Your task to perform on an android device: Go to privacy settings Image 0: 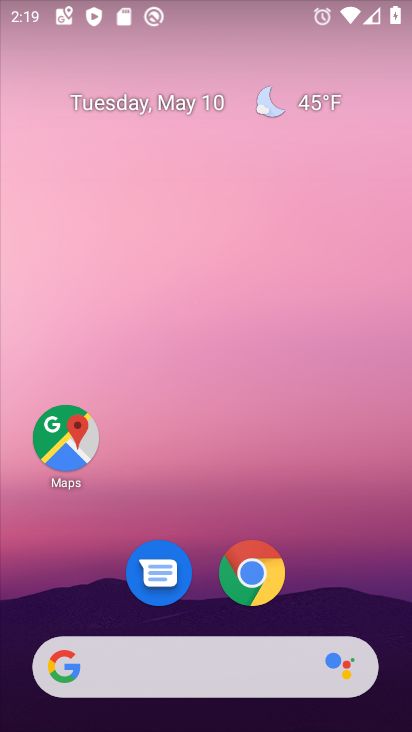
Step 0: drag from (205, 724) to (222, 169)
Your task to perform on an android device: Go to privacy settings Image 1: 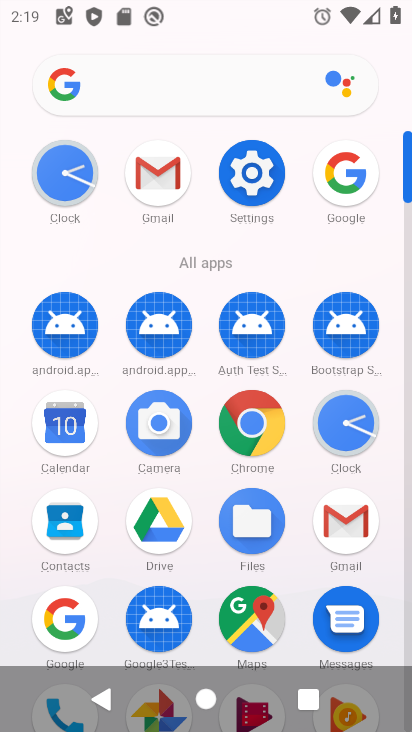
Step 1: click (263, 174)
Your task to perform on an android device: Go to privacy settings Image 2: 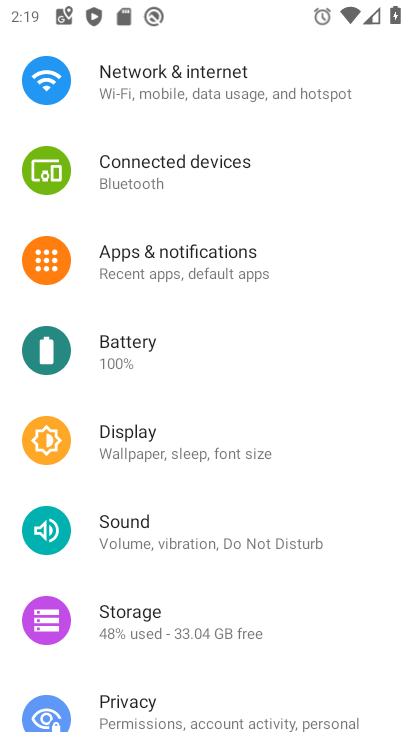
Step 2: drag from (309, 657) to (300, 80)
Your task to perform on an android device: Go to privacy settings Image 3: 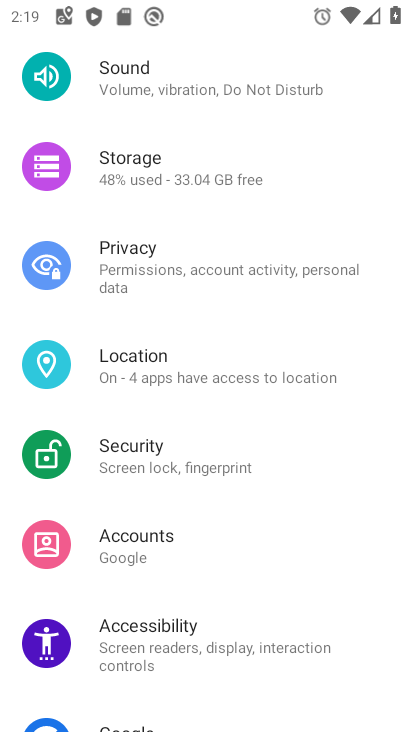
Step 3: click (209, 271)
Your task to perform on an android device: Go to privacy settings Image 4: 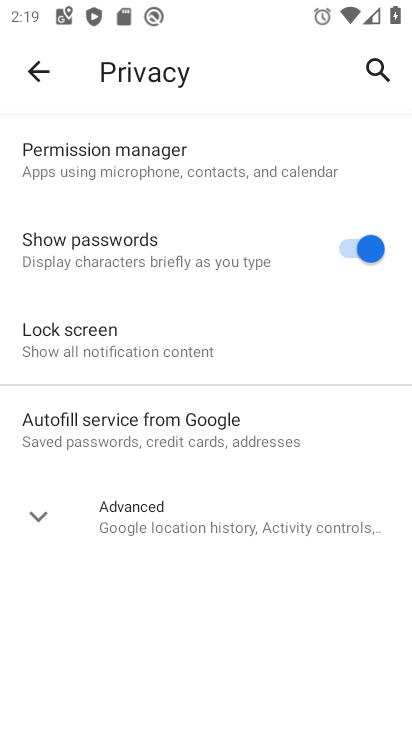
Step 4: task complete